Your task to perform on an android device: Open the map Image 0: 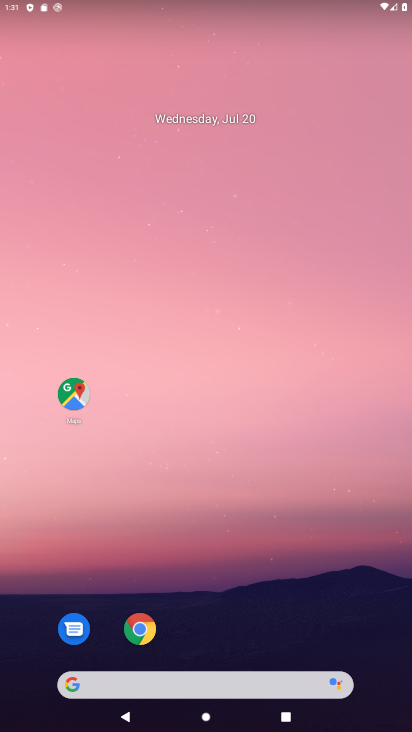
Step 0: click (71, 389)
Your task to perform on an android device: Open the map Image 1: 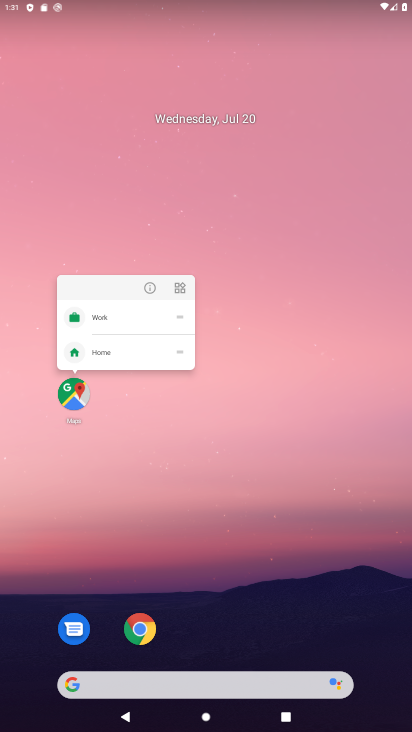
Step 1: click (71, 389)
Your task to perform on an android device: Open the map Image 2: 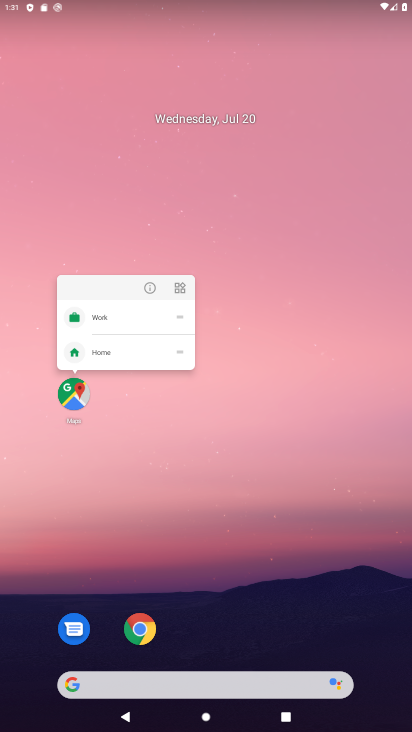
Step 2: click (64, 402)
Your task to perform on an android device: Open the map Image 3: 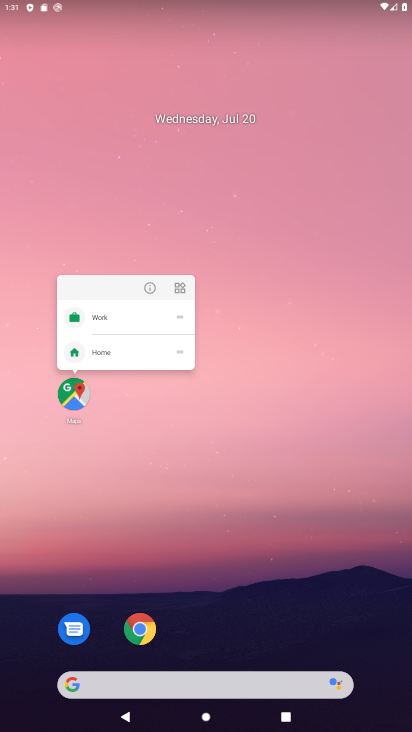
Step 3: click (70, 405)
Your task to perform on an android device: Open the map Image 4: 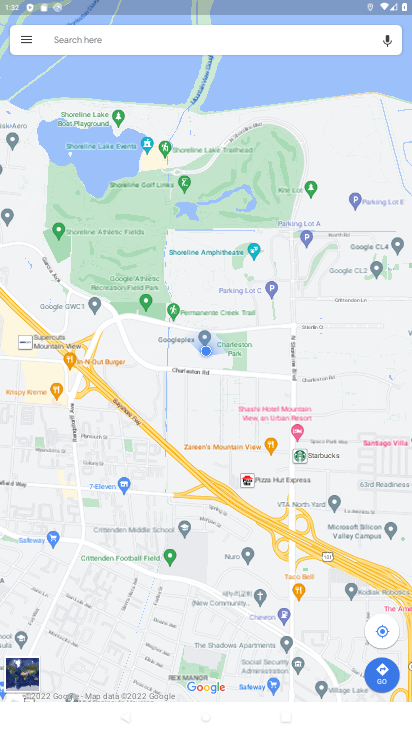
Step 4: task complete